Your task to perform on an android device: Open Youtube and go to "Your channel" Image 0: 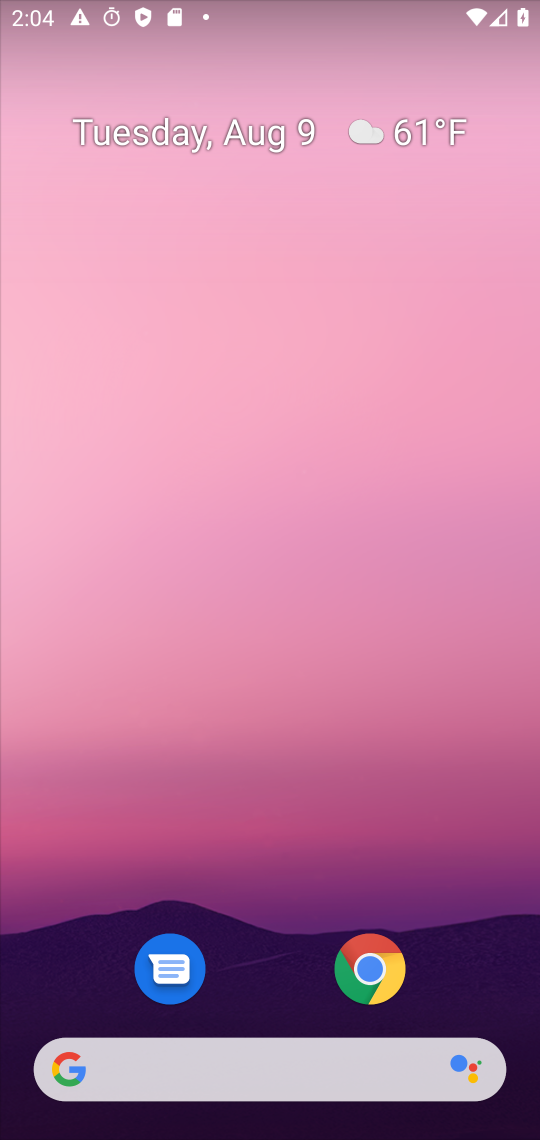
Step 0: drag from (295, 1102) to (275, 487)
Your task to perform on an android device: Open Youtube and go to "Your channel" Image 1: 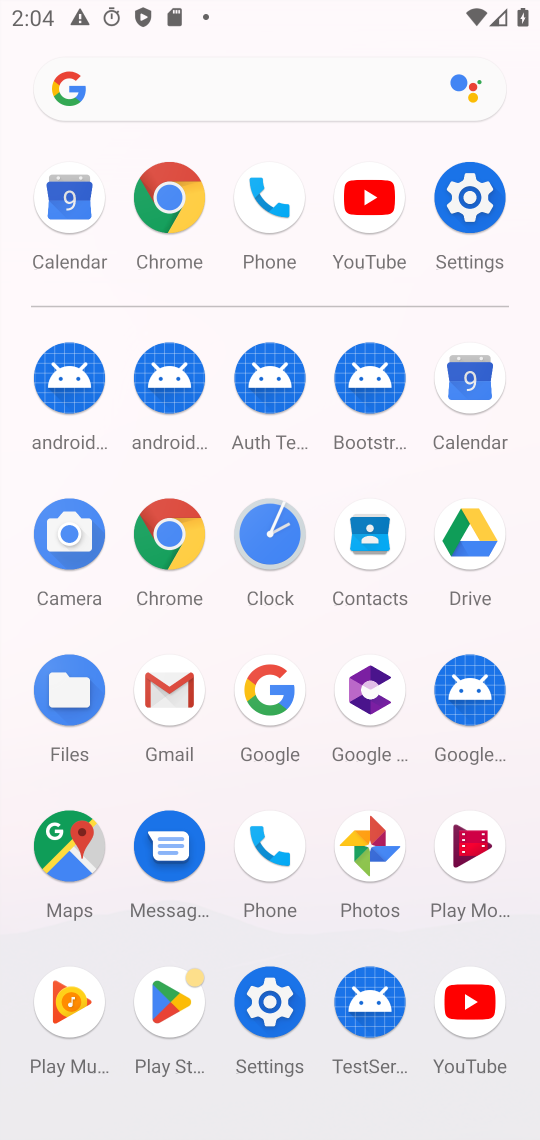
Step 1: click (468, 1015)
Your task to perform on an android device: Open Youtube and go to "Your channel" Image 2: 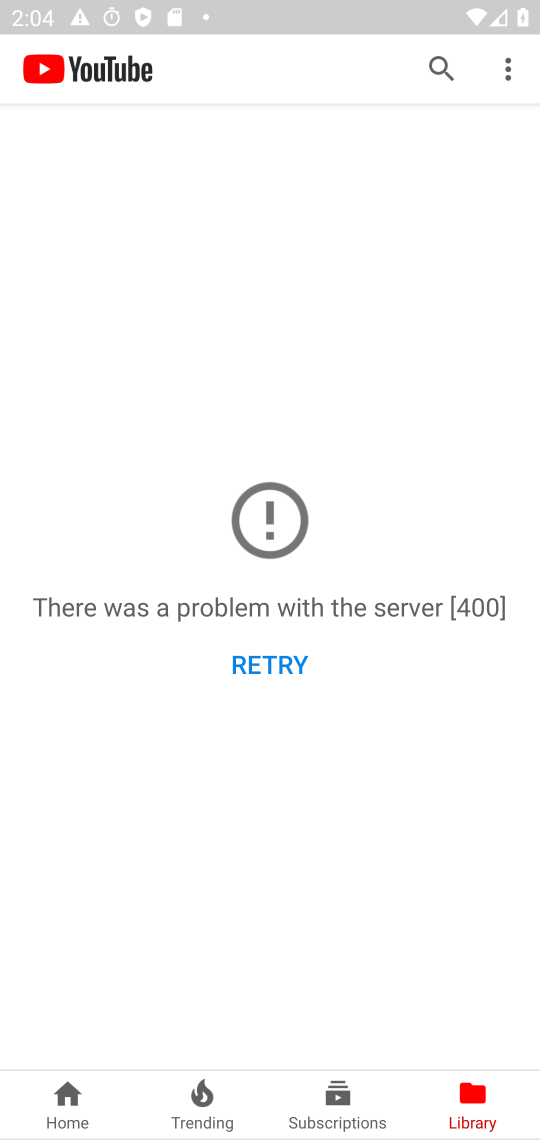
Step 2: click (499, 84)
Your task to perform on an android device: Open Youtube and go to "Your channel" Image 3: 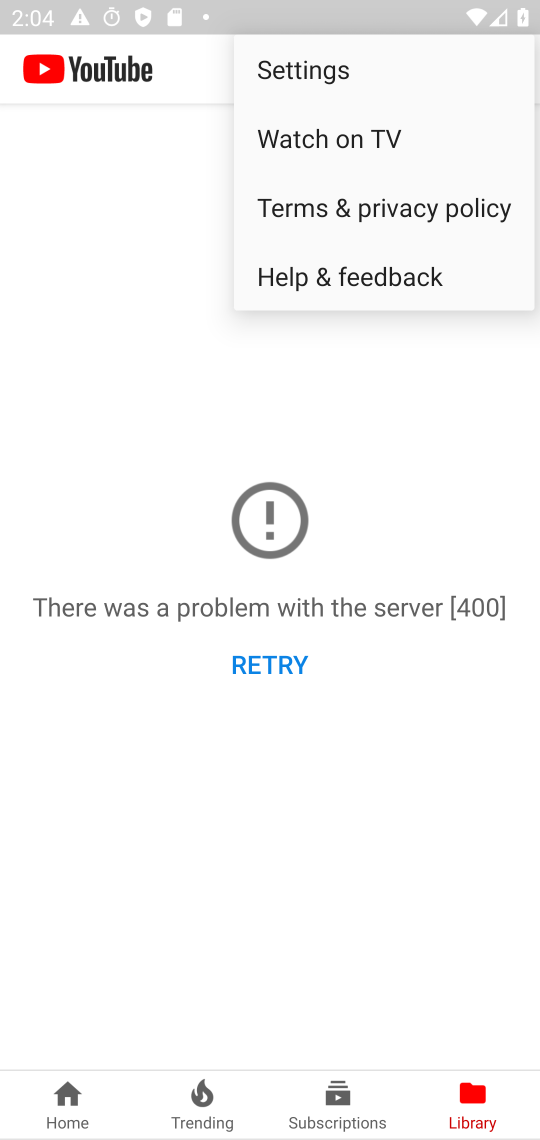
Step 3: click (324, 69)
Your task to perform on an android device: Open Youtube and go to "Your channel" Image 4: 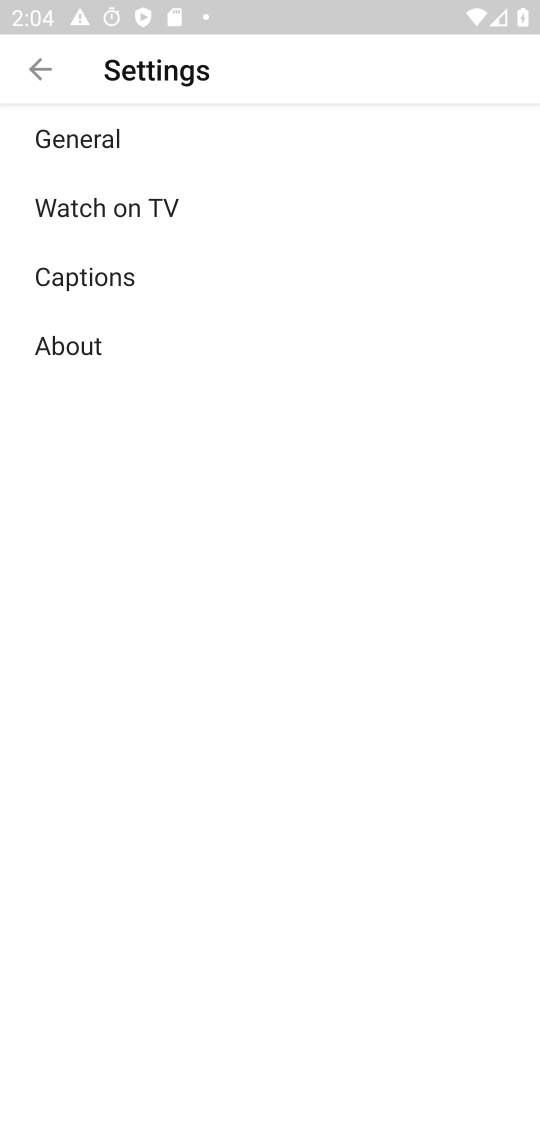
Step 4: click (141, 140)
Your task to perform on an android device: Open Youtube and go to "Your channel" Image 5: 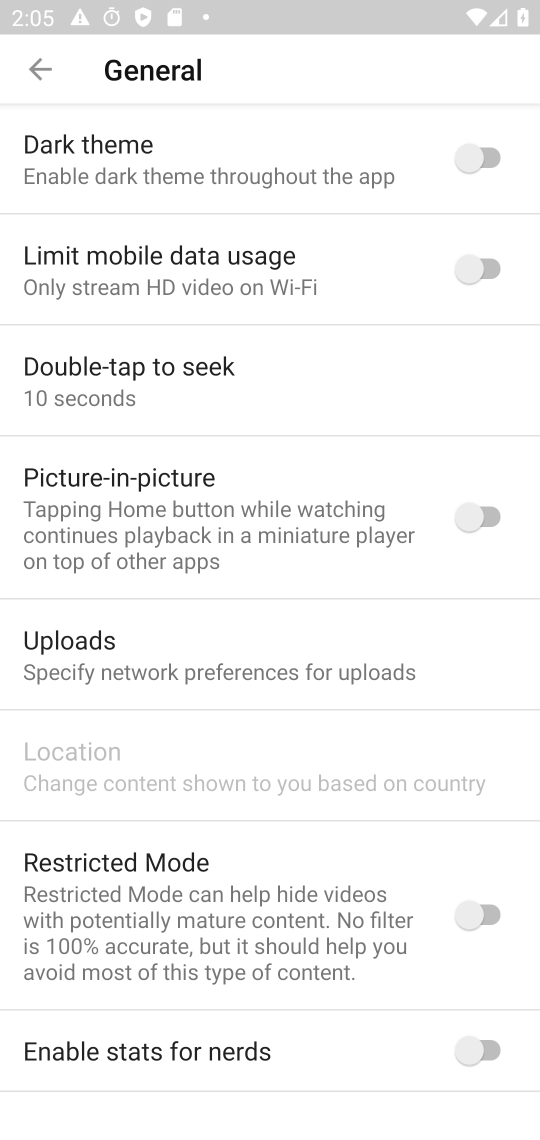
Step 5: click (44, 74)
Your task to perform on an android device: Open Youtube and go to "Your channel" Image 6: 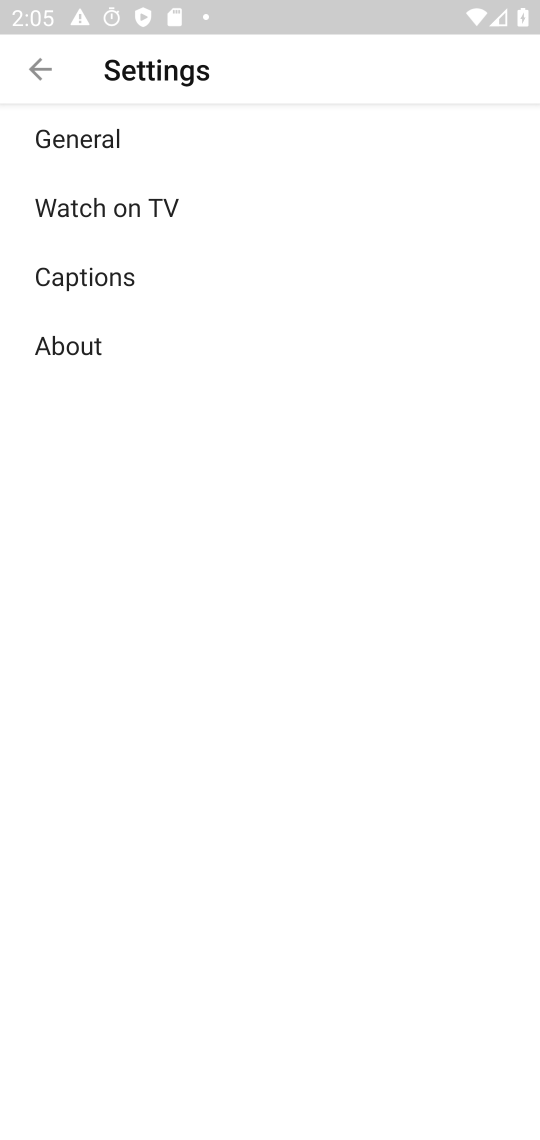
Step 6: click (36, 87)
Your task to perform on an android device: Open Youtube and go to "Your channel" Image 7: 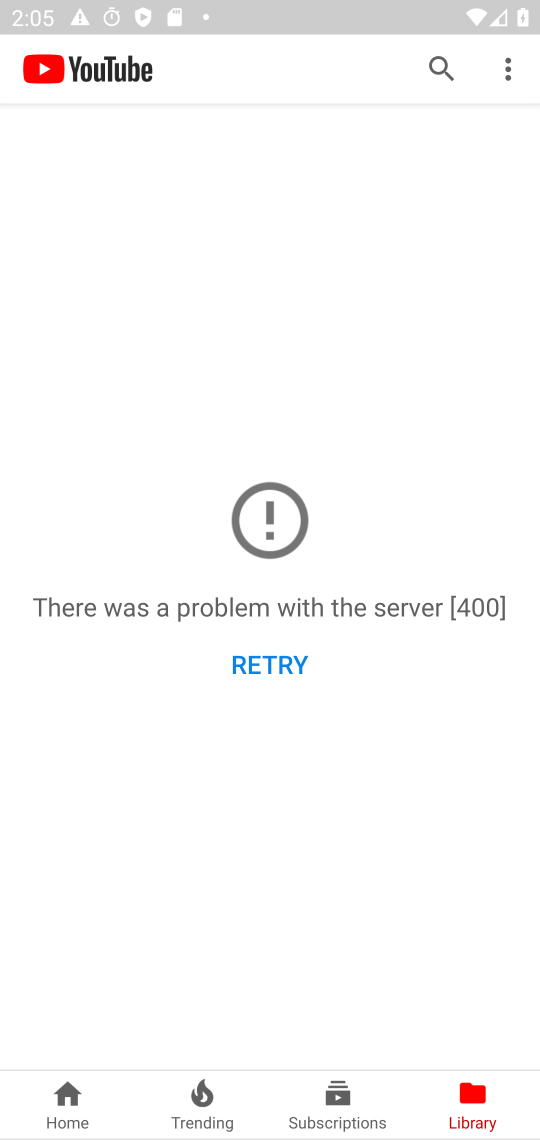
Step 7: click (502, 82)
Your task to perform on an android device: Open Youtube and go to "Your channel" Image 8: 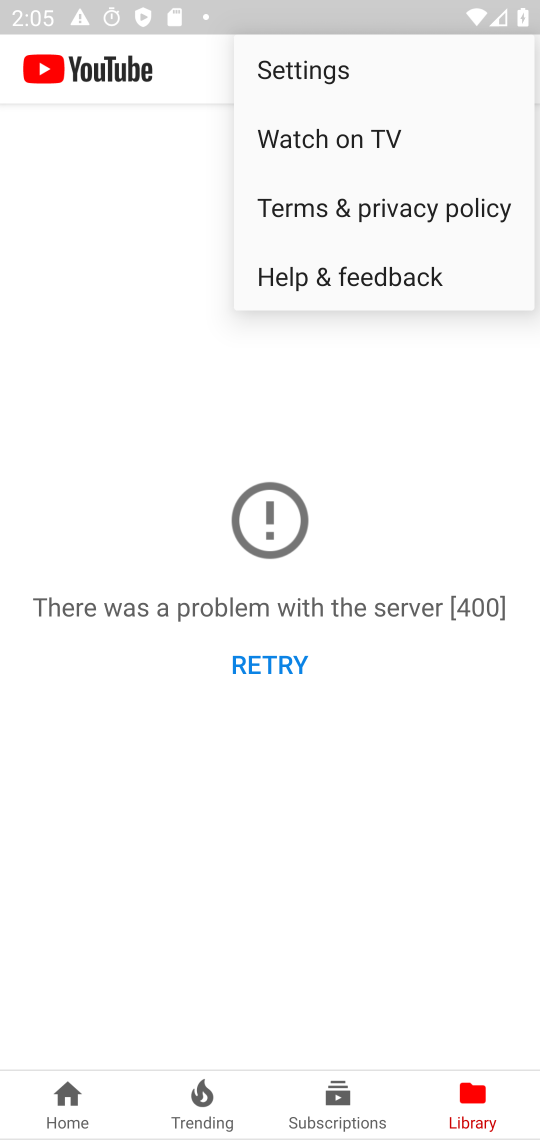
Step 8: click (334, 92)
Your task to perform on an android device: Open Youtube and go to "Your channel" Image 9: 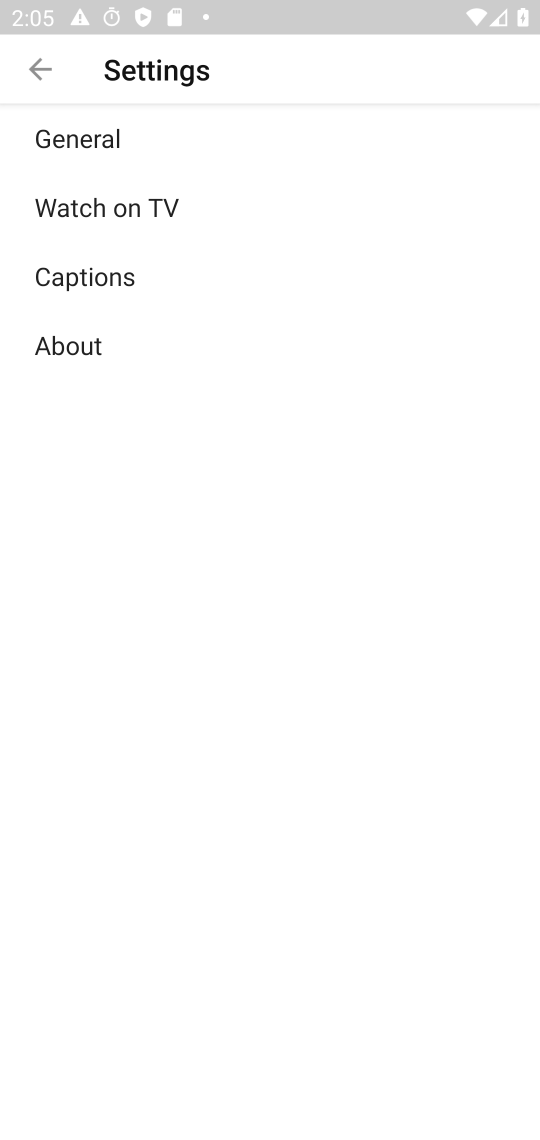
Step 9: task complete